Your task to perform on an android device: toggle notification dots Image 0: 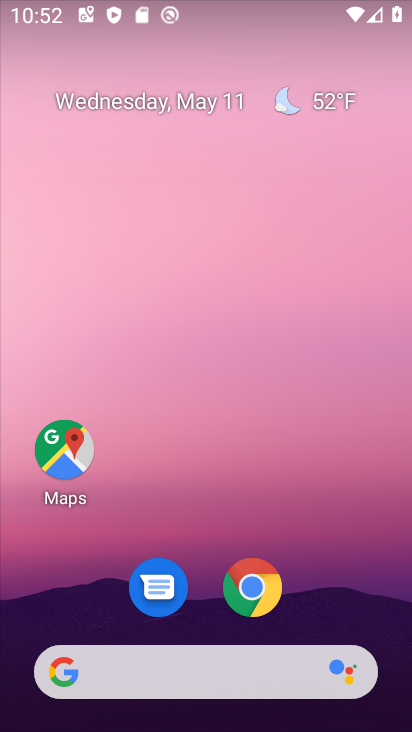
Step 0: drag from (207, 692) to (241, 273)
Your task to perform on an android device: toggle notification dots Image 1: 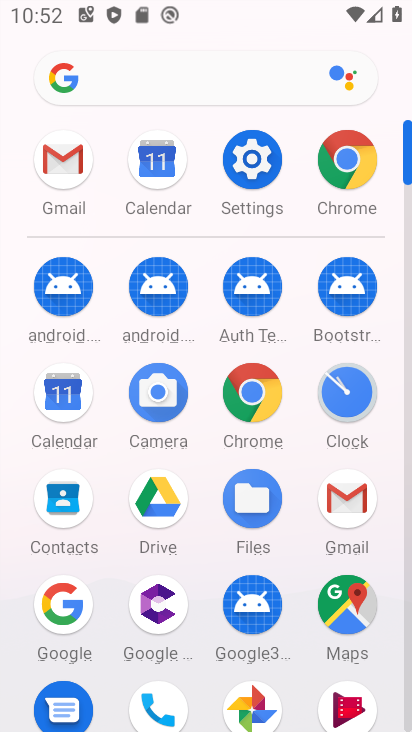
Step 1: click (258, 185)
Your task to perform on an android device: toggle notification dots Image 2: 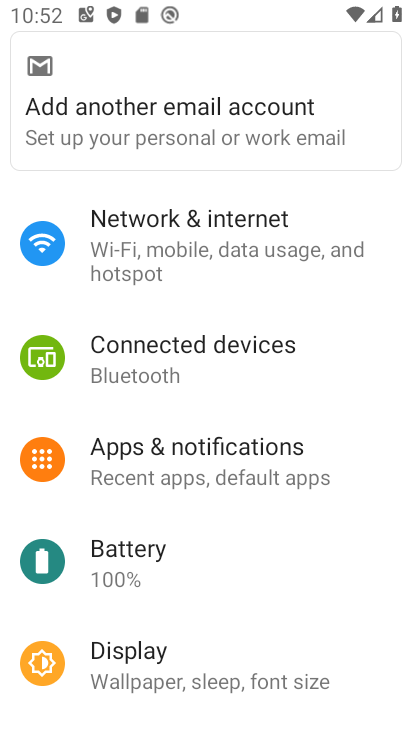
Step 2: drag from (146, 199) to (149, 351)
Your task to perform on an android device: toggle notification dots Image 3: 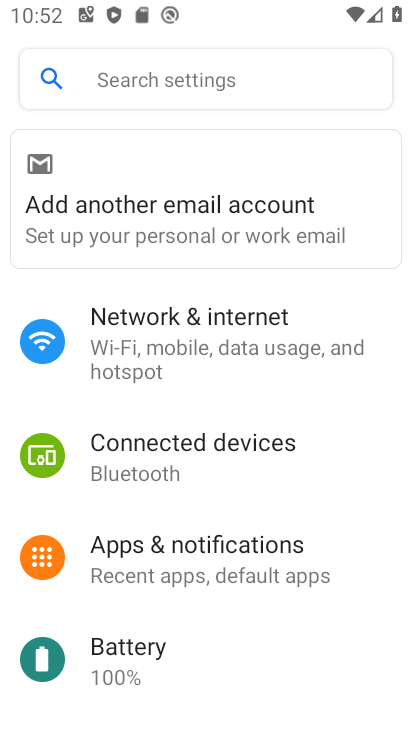
Step 3: click (182, 87)
Your task to perform on an android device: toggle notification dots Image 4: 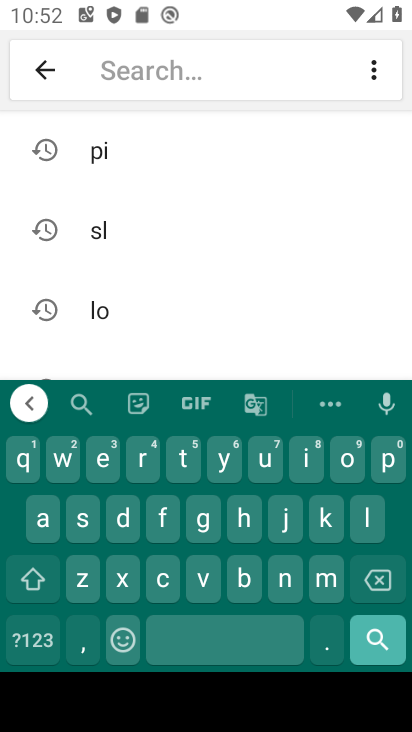
Step 4: click (127, 518)
Your task to perform on an android device: toggle notification dots Image 5: 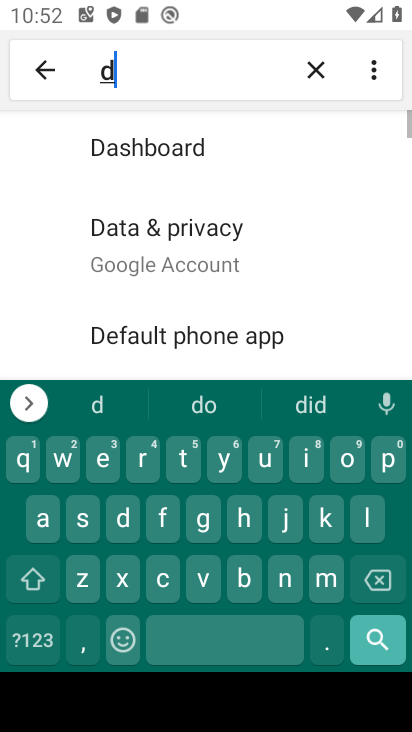
Step 5: click (343, 465)
Your task to perform on an android device: toggle notification dots Image 6: 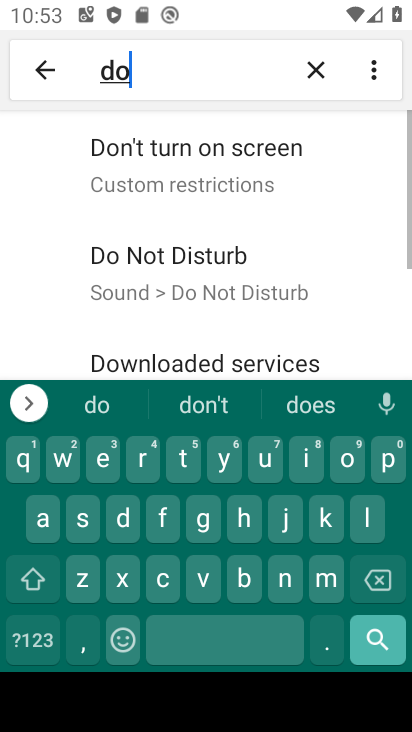
Step 6: click (183, 457)
Your task to perform on an android device: toggle notification dots Image 7: 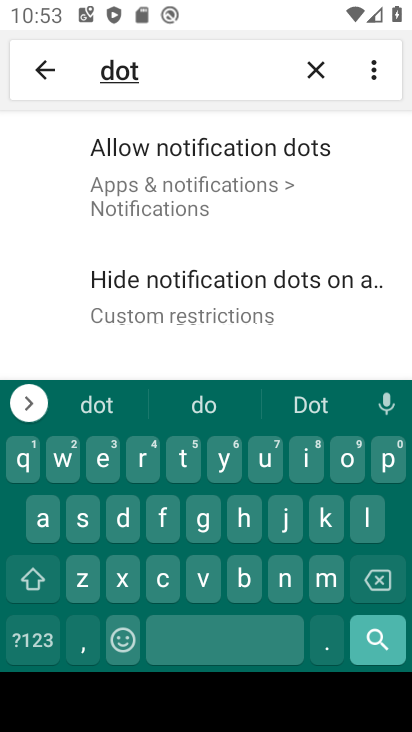
Step 7: click (208, 178)
Your task to perform on an android device: toggle notification dots Image 8: 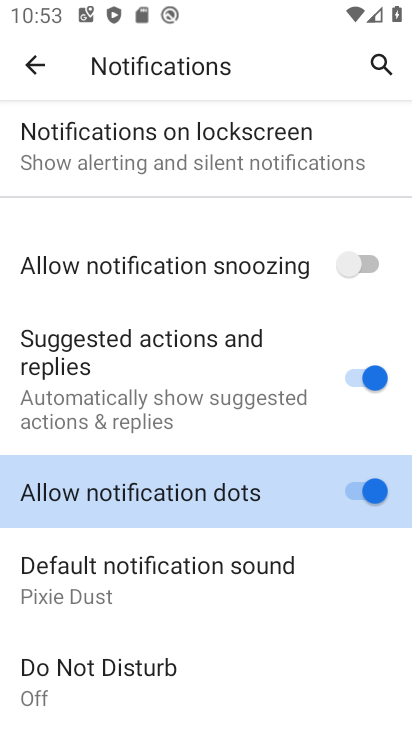
Step 8: click (160, 509)
Your task to perform on an android device: toggle notification dots Image 9: 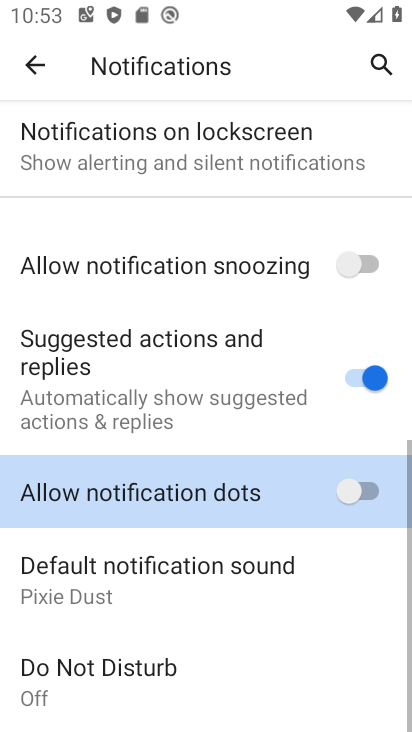
Step 9: click (160, 507)
Your task to perform on an android device: toggle notification dots Image 10: 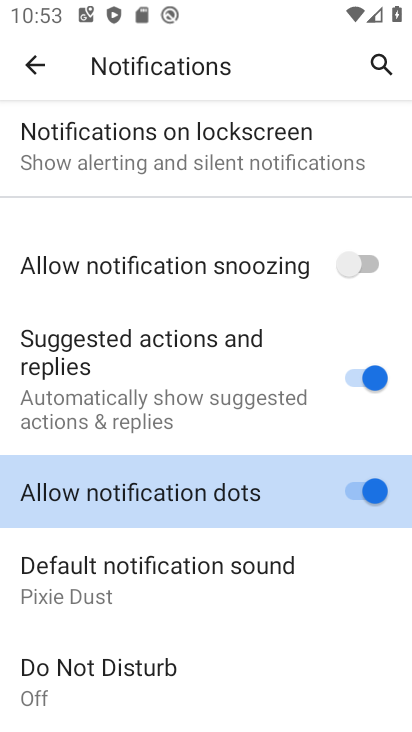
Step 10: task complete